Your task to perform on an android device: Go to location settings Image 0: 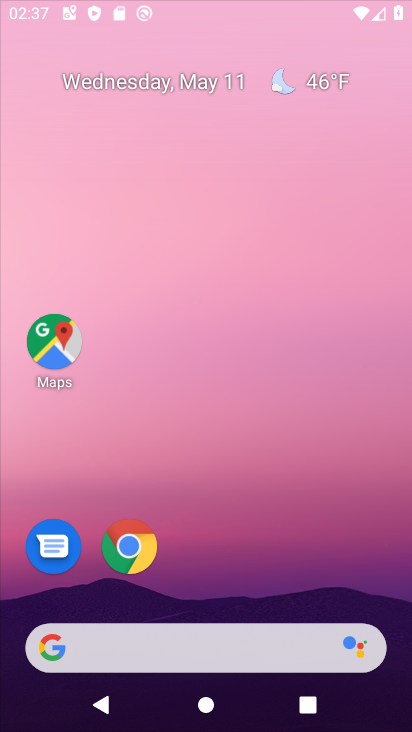
Step 0: click (274, 5)
Your task to perform on an android device: Go to location settings Image 1: 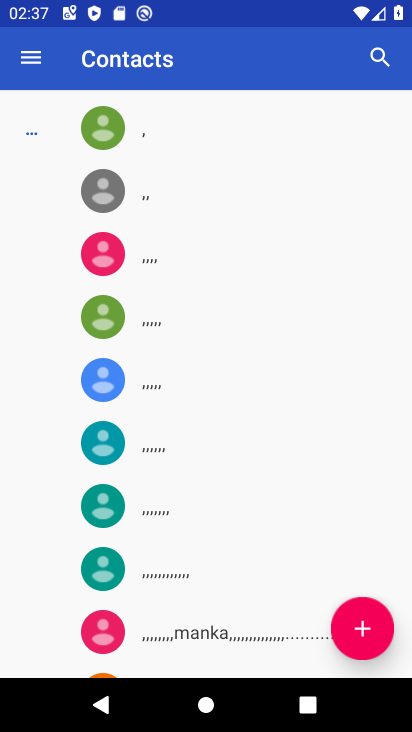
Step 1: press home button
Your task to perform on an android device: Go to location settings Image 2: 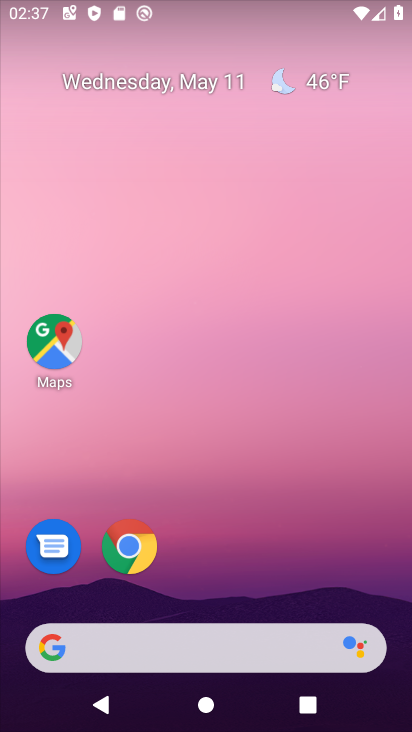
Step 2: drag from (192, 601) to (194, 194)
Your task to perform on an android device: Go to location settings Image 3: 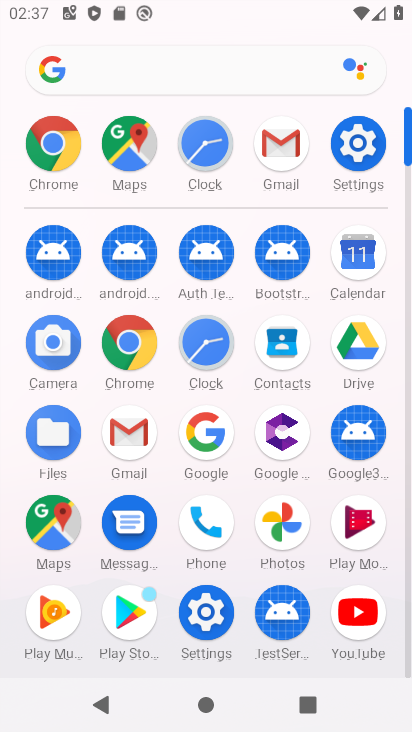
Step 3: click (359, 126)
Your task to perform on an android device: Go to location settings Image 4: 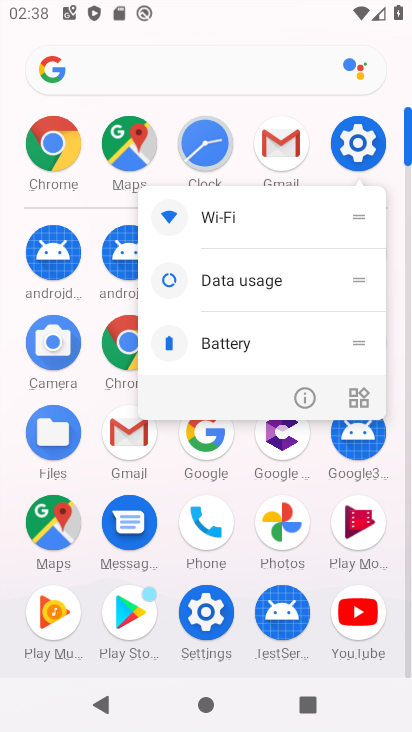
Step 4: click (297, 396)
Your task to perform on an android device: Go to location settings Image 5: 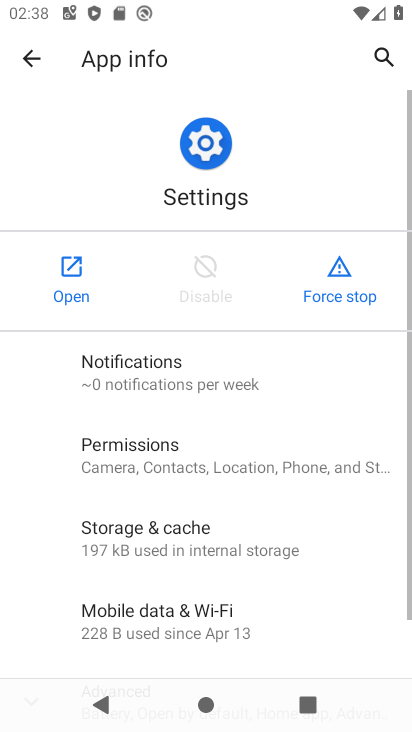
Step 5: click (83, 276)
Your task to perform on an android device: Go to location settings Image 6: 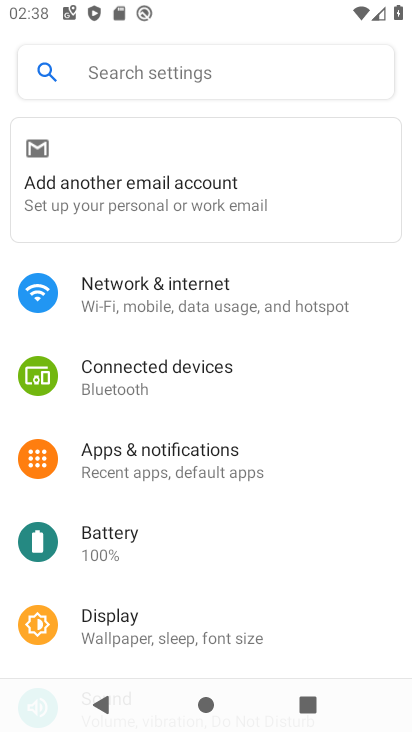
Step 6: drag from (218, 487) to (234, 191)
Your task to perform on an android device: Go to location settings Image 7: 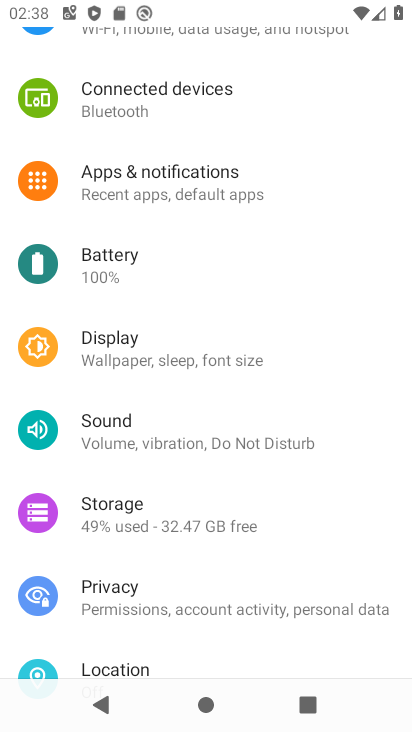
Step 7: drag from (167, 578) to (241, 261)
Your task to perform on an android device: Go to location settings Image 8: 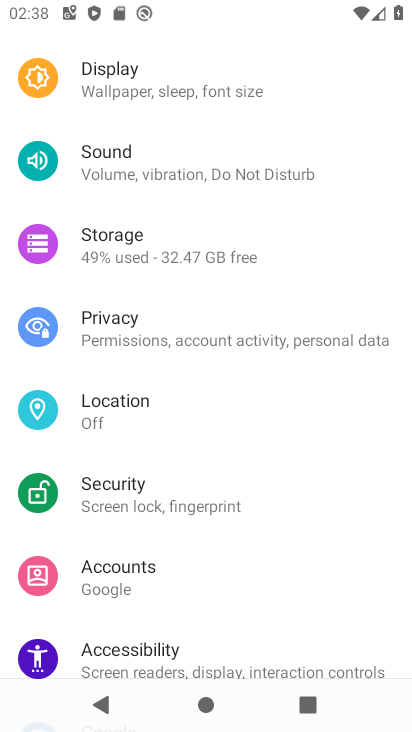
Step 8: drag from (273, 522) to (292, 254)
Your task to perform on an android device: Go to location settings Image 9: 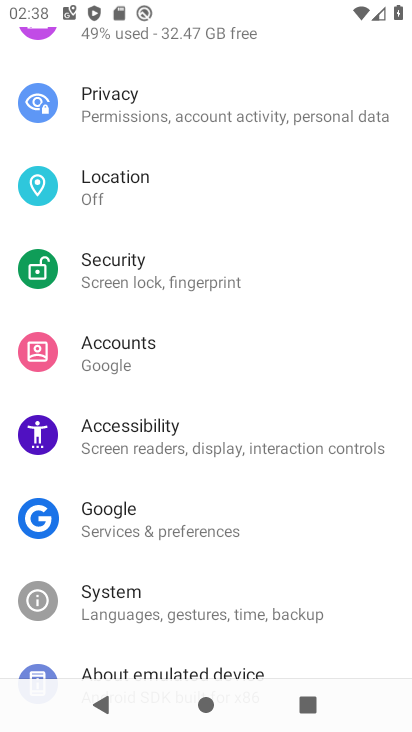
Step 9: drag from (177, 600) to (268, 193)
Your task to perform on an android device: Go to location settings Image 10: 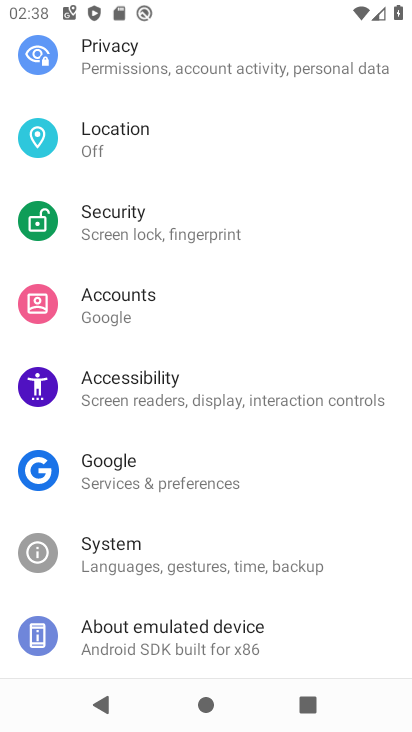
Step 10: click (178, 144)
Your task to perform on an android device: Go to location settings Image 11: 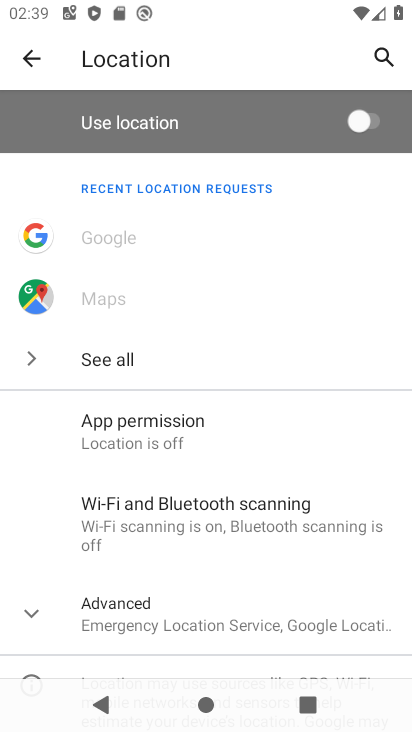
Step 11: click (351, 126)
Your task to perform on an android device: Go to location settings Image 12: 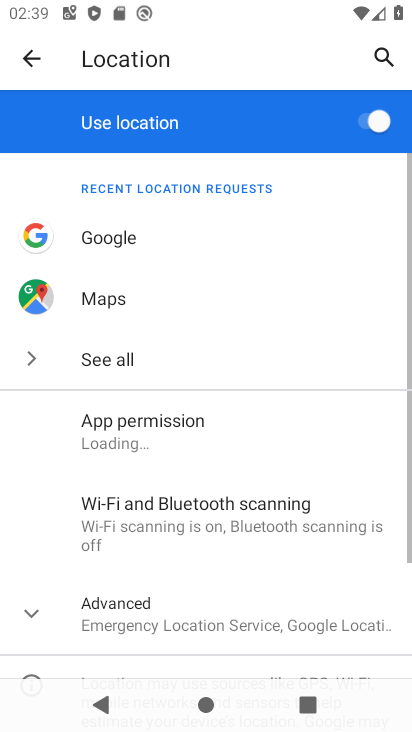
Step 12: click (351, 126)
Your task to perform on an android device: Go to location settings Image 13: 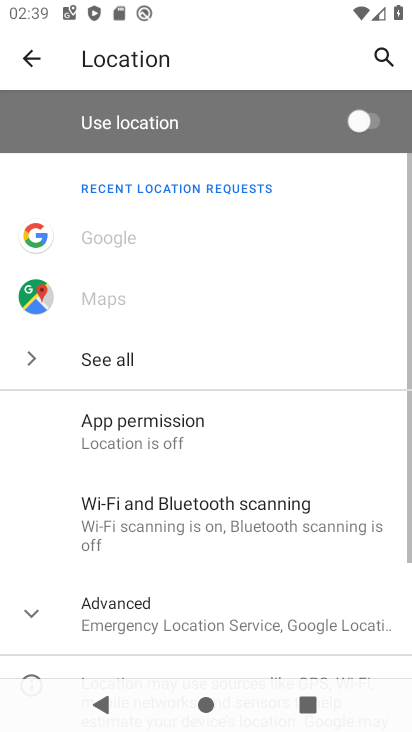
Step 13: task complete